Your task to perform on an android device: turn pop-ups on in chrome Image 0: 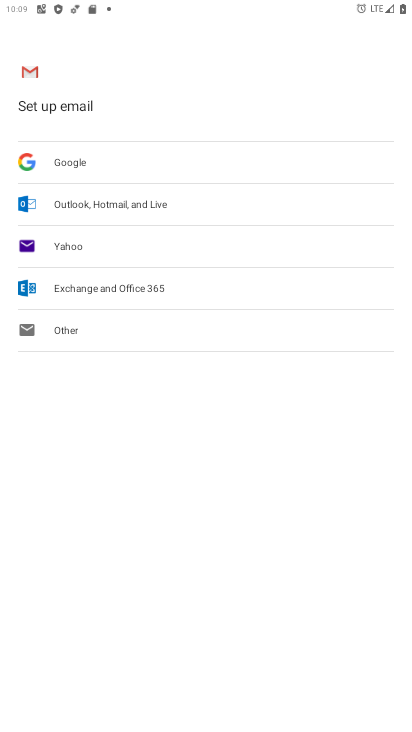
Step 0: drag from (240, 527) to (268, 379)
Your task to perform on an android device: turn pop-ups on in chrome Image 1: 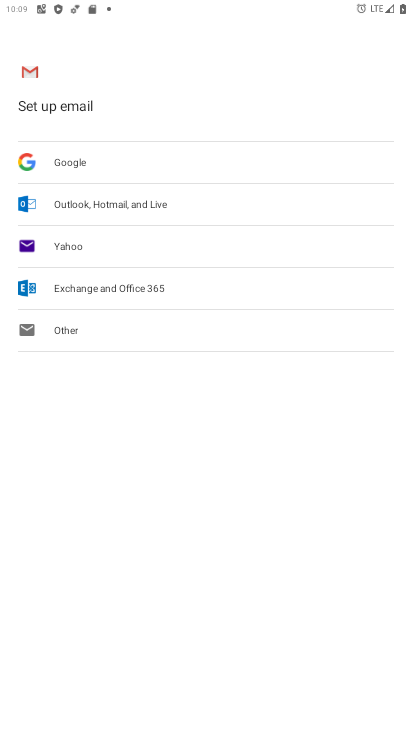
Step 1: press home button
Your task to perform on an android device: turn pop-ups on in chrome Image 2: 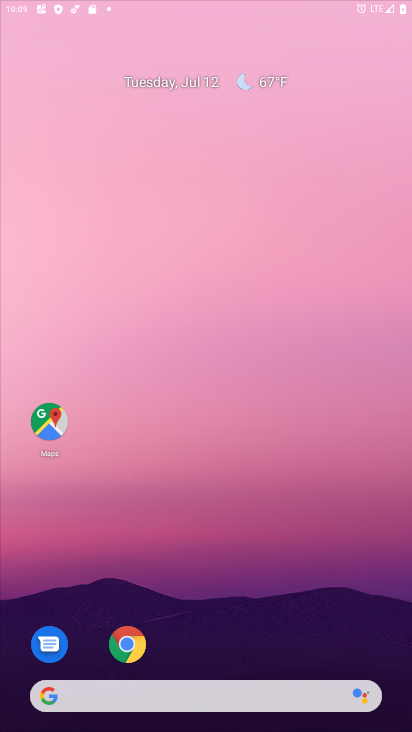
Step 2: drag from (241, 397) to (323, 113)
Your task to perform on an android device: turn pop-ups on in chrome Image 3: 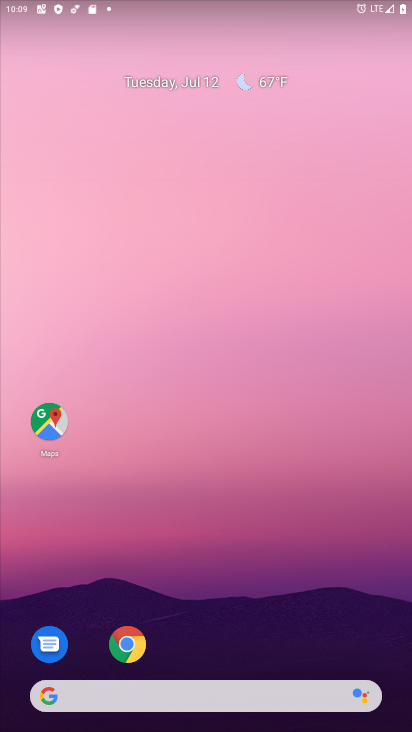
Step 3: drag from (188, 609) to (259, 90)
Your task to perform on an android device: turn pop-ups on in chrome Image 4: 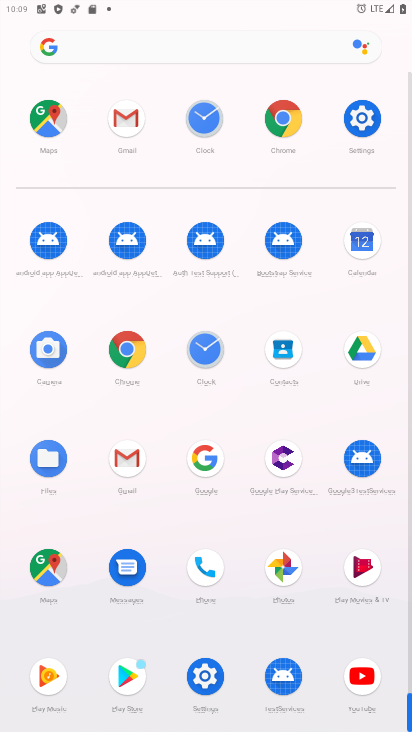
Step 4: click (138, 343)
Your task to perform on an android device: turn pop-ups on in chrome Image 5: 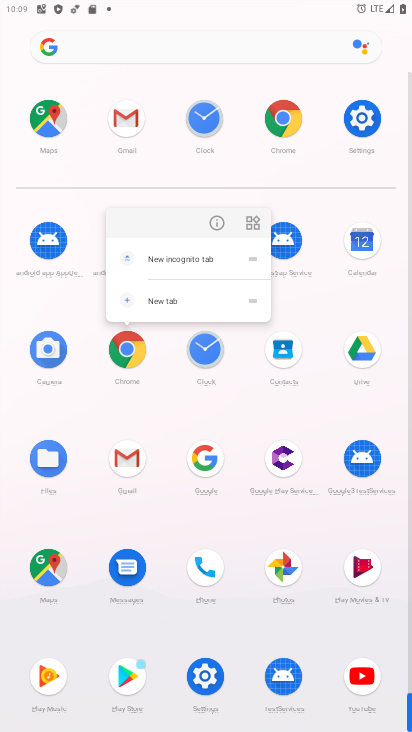
Step 5: click (218, 218)
Your task to perform on an android device: turn pop-ups on in chrome Image 6: 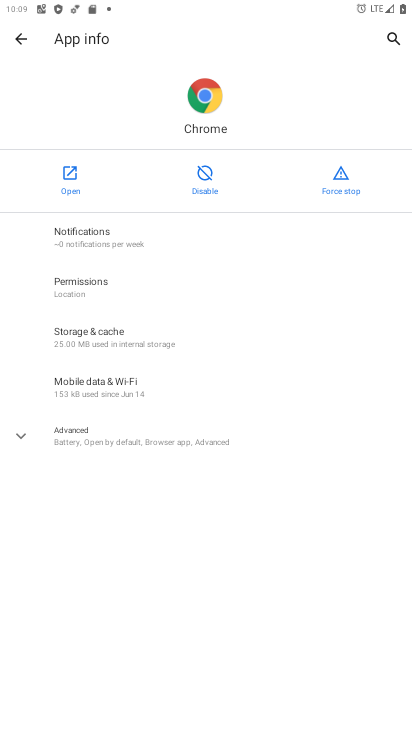
Step 6: click (68, 181)
Your task to perform on an android device: turn pop-ups on in chrome Image 7: 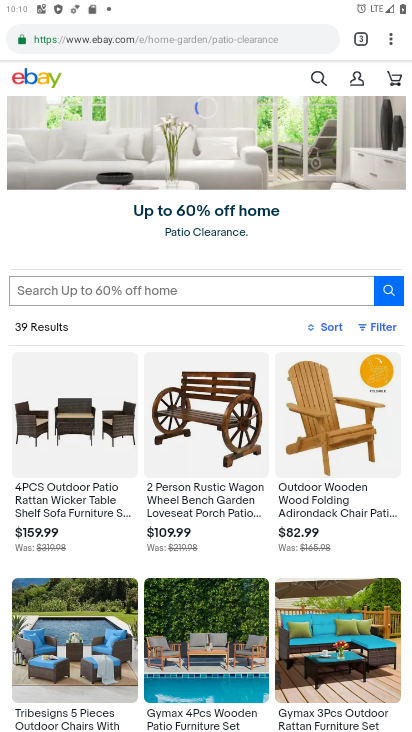
Step 7: drag from (161, 604) to (270, 310)
Your task to perform on an android device: turn pop-ups on in chrome Image 8: 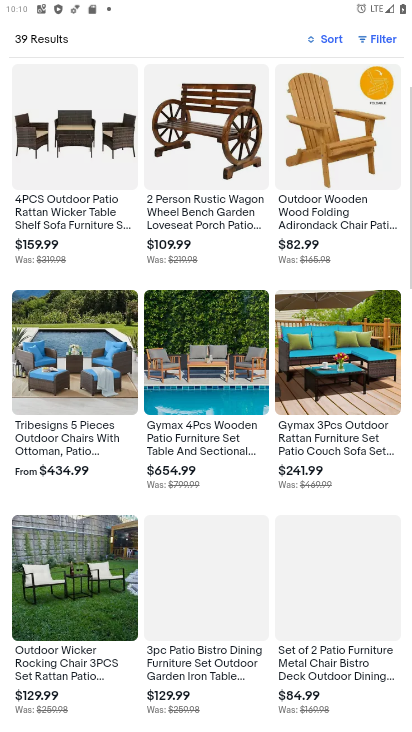
Step 8: drag from (260, 305) to (361, 722)
Your task to perform on an android device: turn pop-ups on in chrome Image 9: 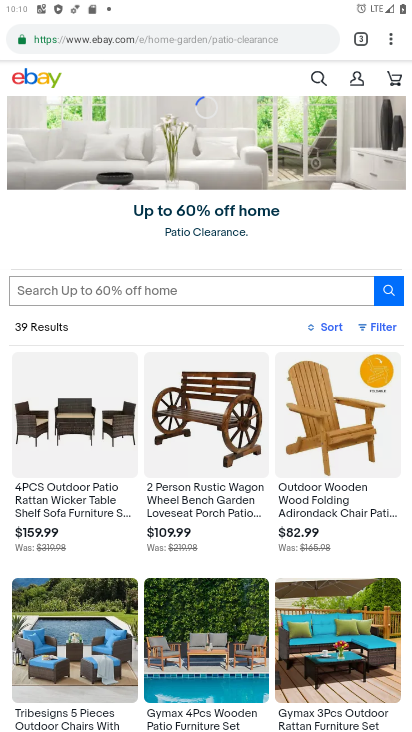
Step 9: click (396, 45)
Your task to perform on an android device: turn pop-ups on in chrome Image 10: 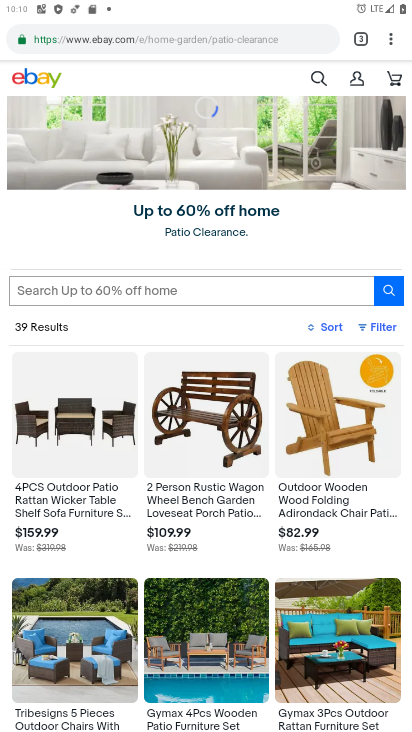
Step 10: drag from (388, 32) to (278, 514)
Your task to perform on an android device: turn pop-ups on in chrome Image 11: 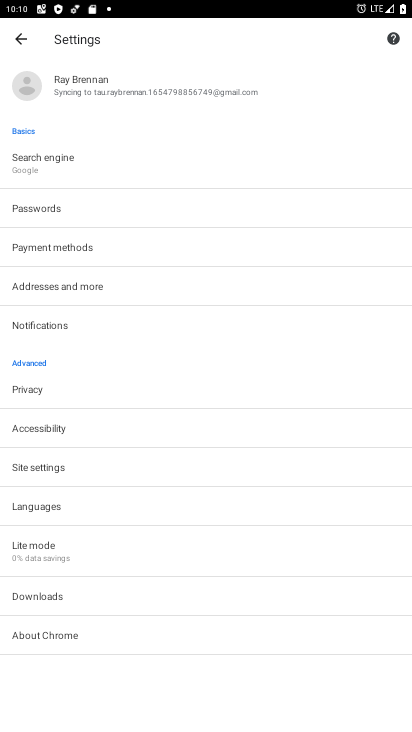
Step 11: drag from (243, 572) to (261, 273)
Your task to perform on an android device: turn pop-ups on in chrome Image 12: 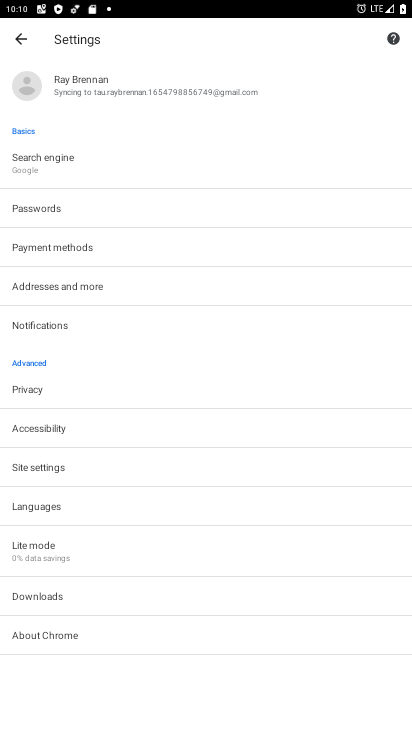
Step 12: drag from (310, 550) to (322, 334)
Your task to perform on an android device: turn pop-ups on in chrome Image 13: 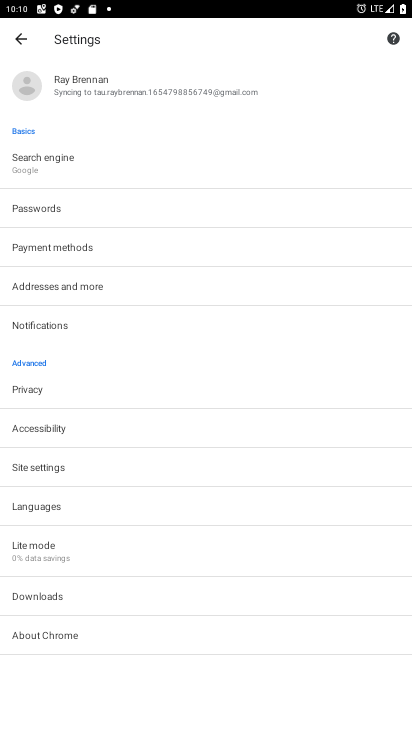
Step 13: drag from (186, 632) to (233, 389)
Your task to perform on an android device: turn pop-ups on in chrome Image 14: 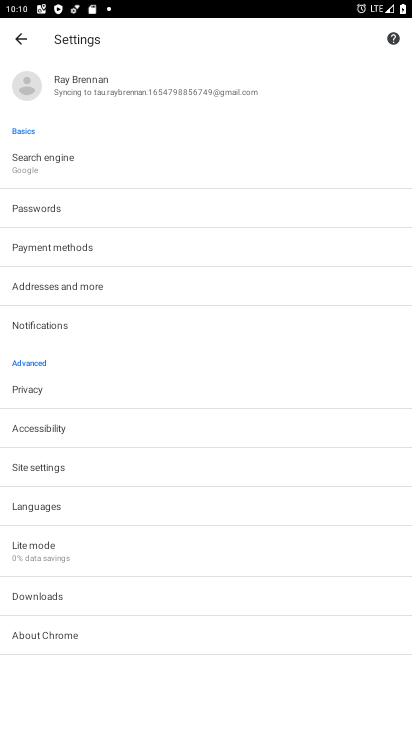
Step 14: click (234, 323)
Your task to perform on an android device: turn pop-ups on in chrome Image 15: 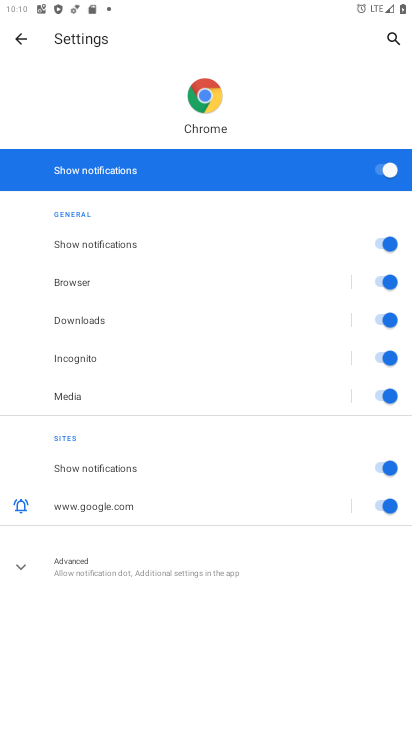
Step 15: click (12, 41)
Your task to perform on an android device: turn pop-ups on in chrome Image 16: 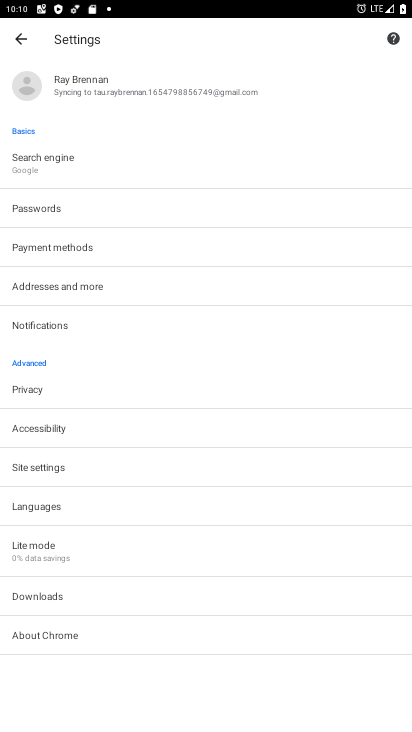
Step 16: click (92, 466)
Your task to perform on an android device: turn pop-ups on in chrome Image 17: 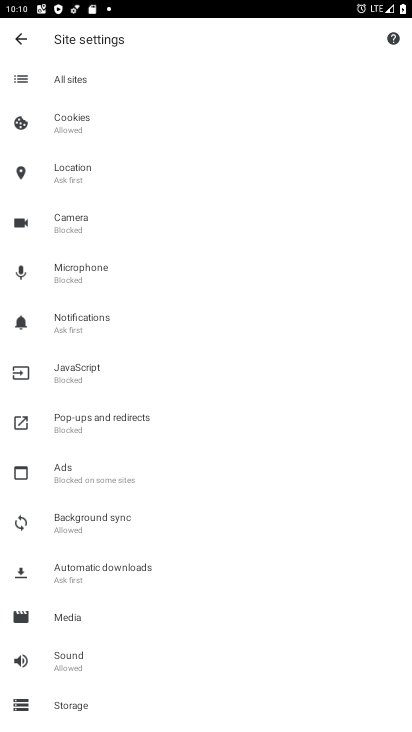
Step 17: drag from (59, 604) to (383, 90)
Your task to perform on an android device: turn pop-ups on in chrome Image 18: 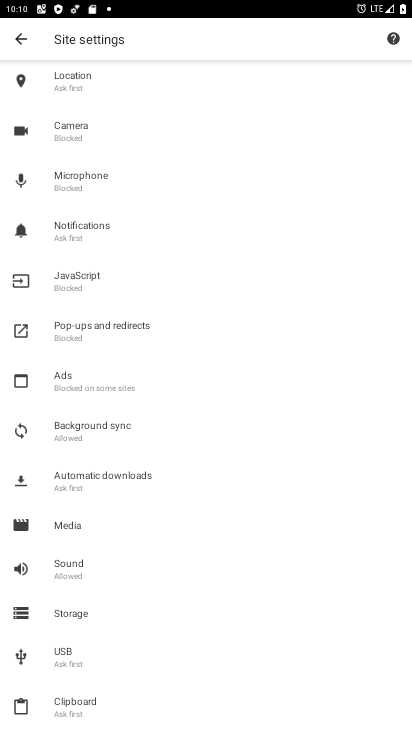
Step 18: drag from (152, 598) to (203, 383)
Your task to perform on an android device: turn pop-ups on in chrome Image 19: 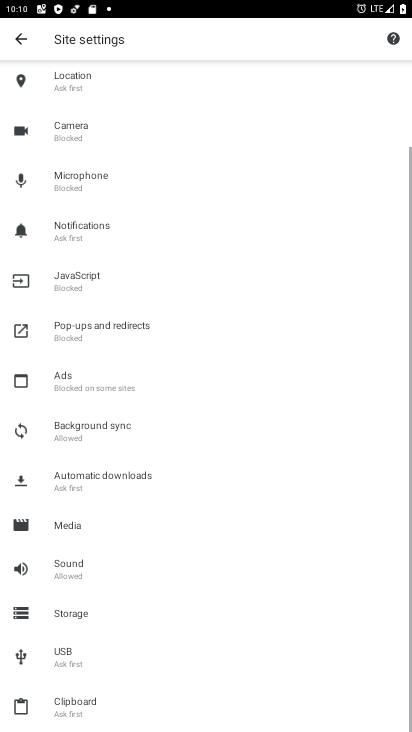
Step 19: drag from (236, 243) to (300, 604)
Your task to perform on an android device: turn pop-ups on in chrome Image 20: 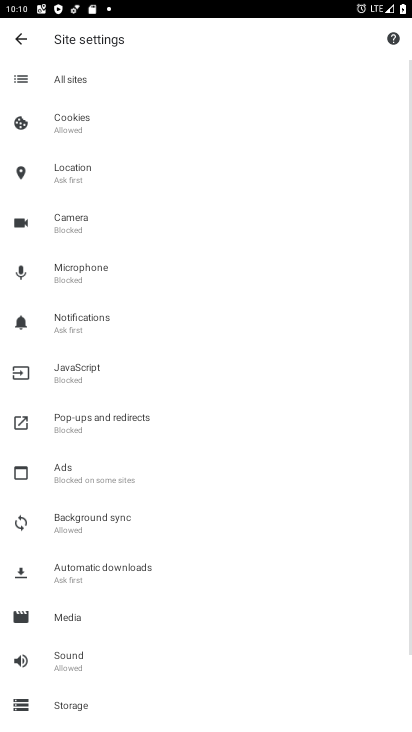
Step 20: click (93, 425)
Your task to perform on an android device: turn pop-ups on in chrome Image 21: 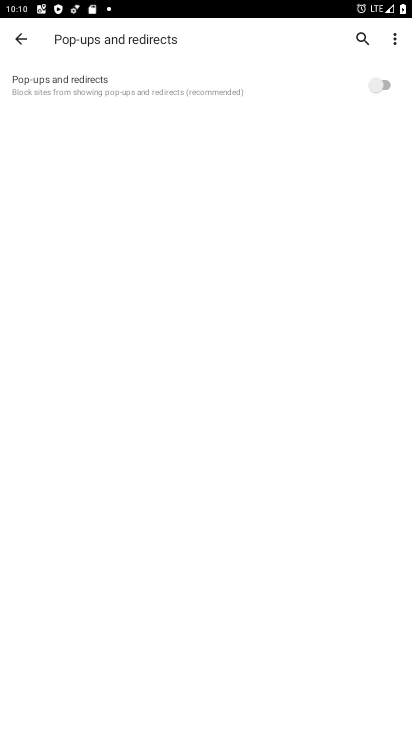
Step 21: click (287, 88)
Your task to perform on an android device: turn pop-ups on in chrome Image 22: 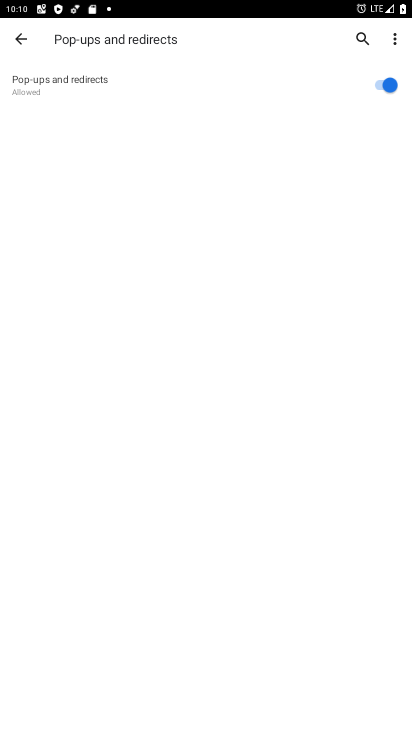
Step 22: task complete